Your task to perform on an android device: search for starred emails in the gmail app Image 0: 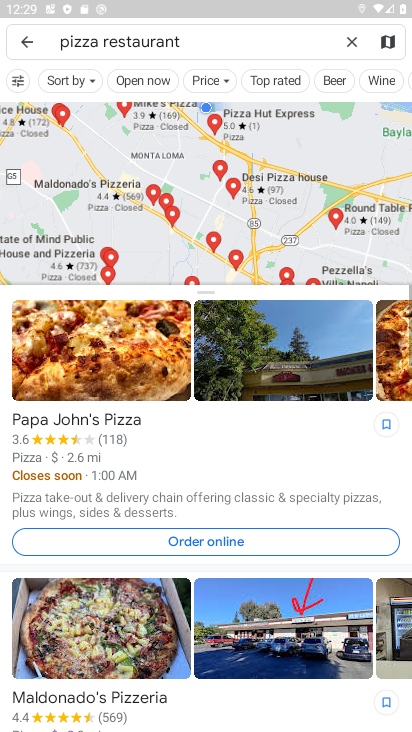
Step 0: press home button
Your task to perform on an android device: search for starred emails in the gmail app Image 1: 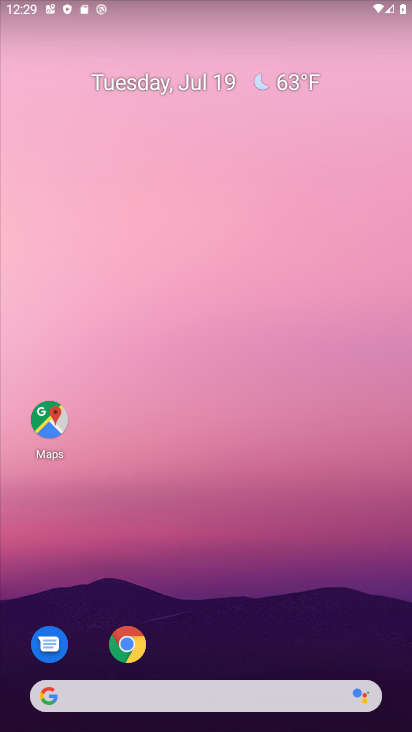
Step 1: drag from (206, 722) to (210, 374)
Your task to perform on an android device: search for starred emails in the gmail app Image 2: 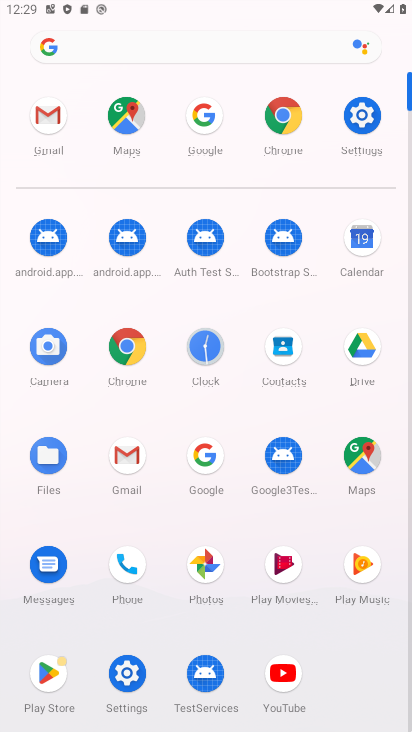
Step 2: click (125, 453)
Your task to perform on an android device: search for starred emails in the gmail app Image 3: 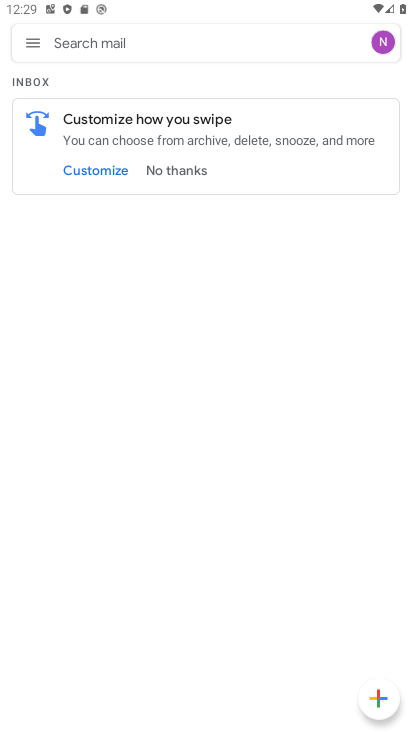
Step 3: click (30, 51)
Your task to perform on an android device: search for starred emails in the gmail app Image 4: 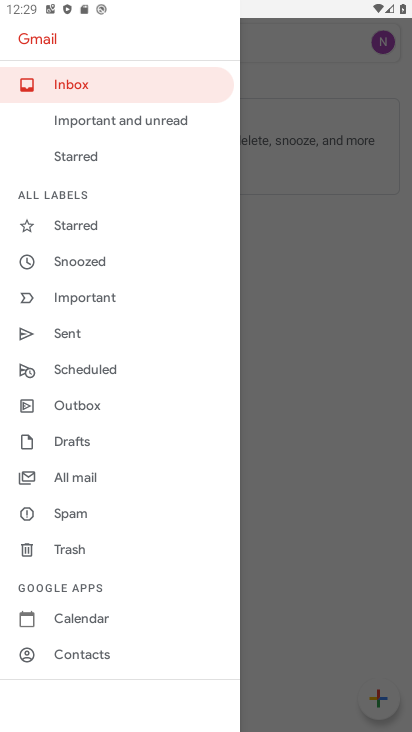
Step 4: click (85, 152)
Your task to perform on an android device: search for starred emails in the gmail app Image 5: 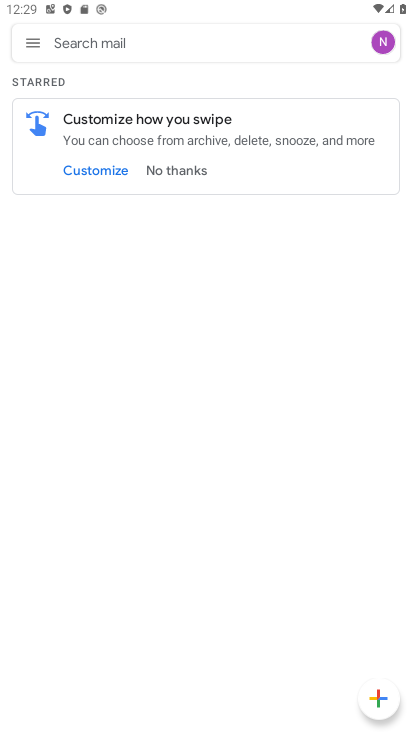
Step 5: task complete